Your task to perform on an android device: clear history in the chrome app Image 0: 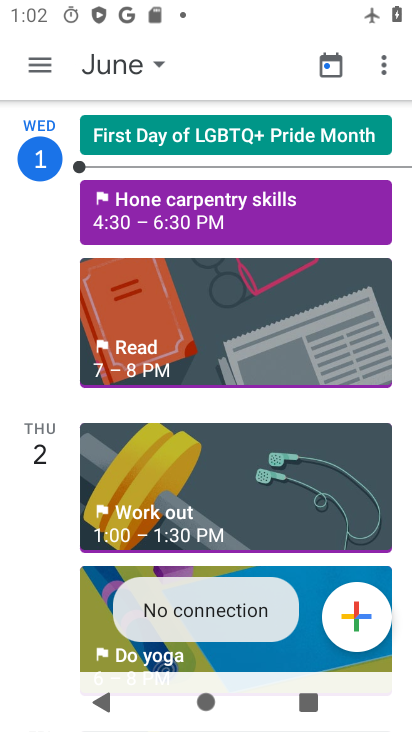
Step 0: press home button
Your task to perform on an android device: clear history in the chrome app Image 1: 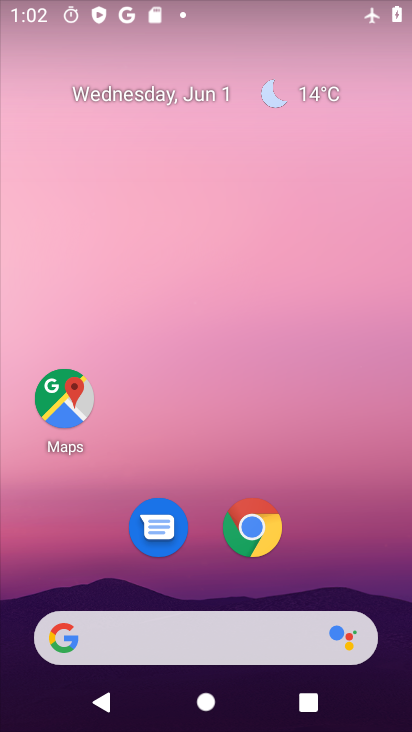
Step 1: drag from (154, 617) to (309, 114)
Your task to perform on an android device: clear history in the chrome app Image 2: 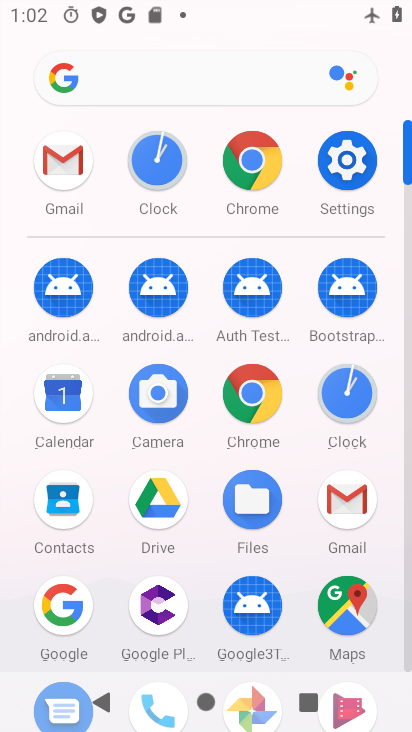
Step 2: click (249, 391)
Your task to perform on an android device: clear history in the chrome app Image 3: 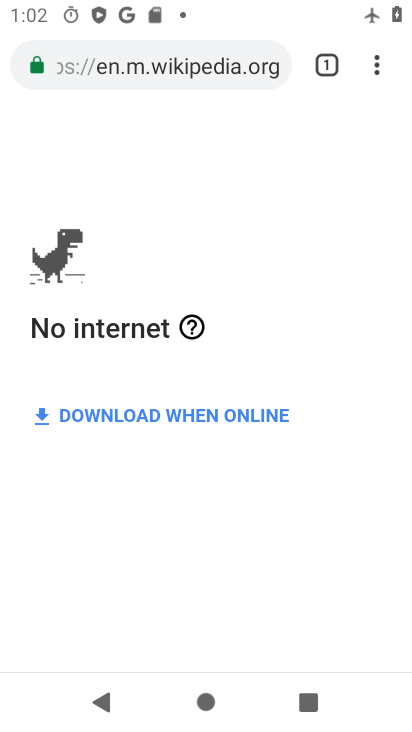
Step 3: click (381, 83)
Your task to perform on an android device: clear history in the chrome app Image 4: 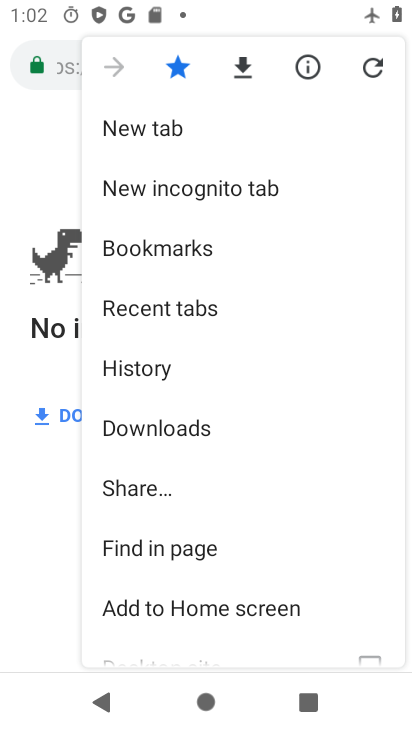
Step 4: click (153, 369)
Your task to perform on an android device: clear history in the chrome app Image 5: 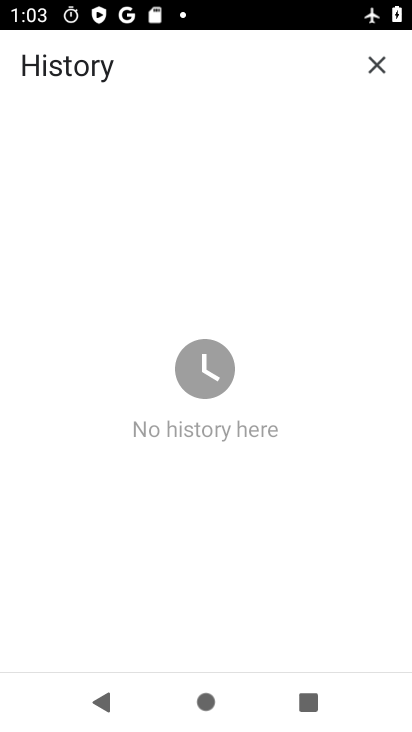
Step 5: task complete